Your task to perform on an android device: Open settings Image 0: 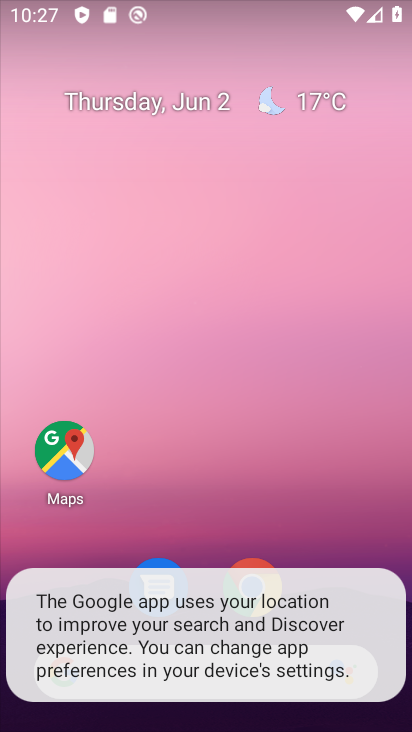
Step 0: drag from (263, 605) to (342, 225)
Your task to perform on an android device: Open settings Image 1: 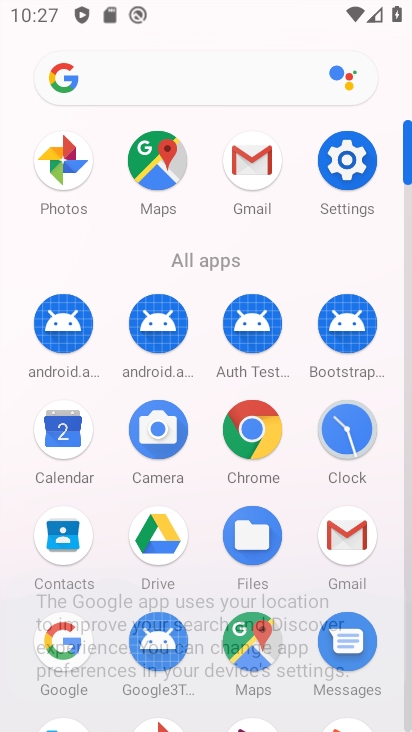
Step 1: click (346, 187)
Your task to perform on an android device: Open settings Image 2: 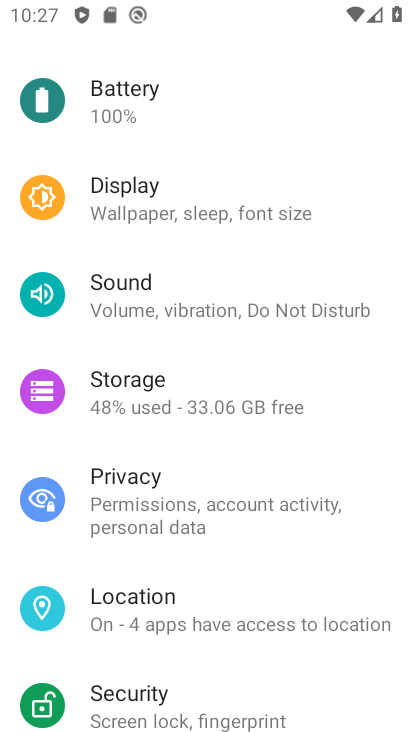
Step 2: drag from (223, 180) to (230, 619)
Your task to perform on an android device: Open settings Image 3: 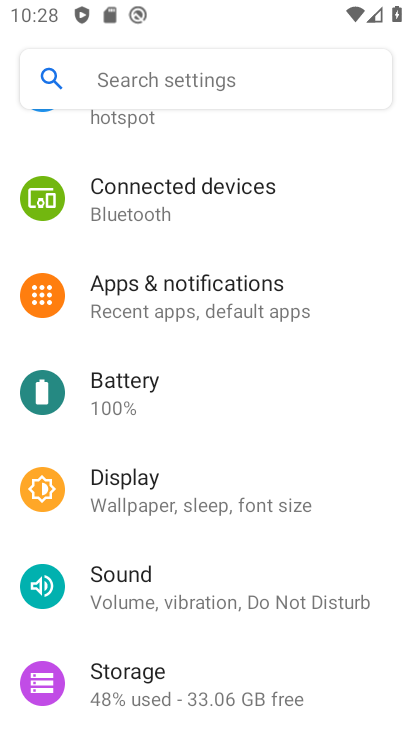
Step 3: drag from (237, 223) to (255, 650)
Your task to perform on an android device: Open settings Image 4: 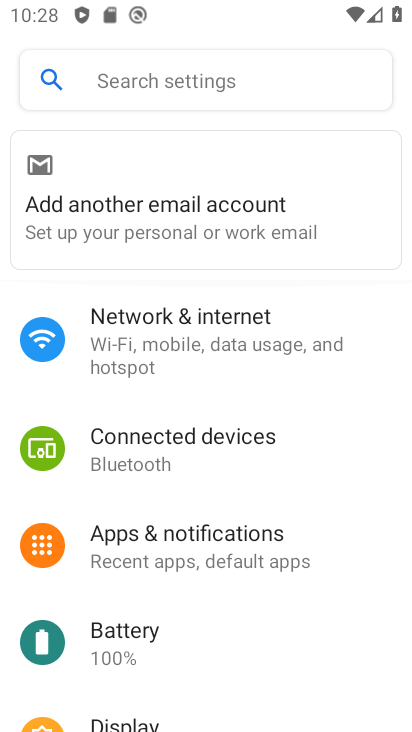
Step 4: drag from (304, 213) to (298, 555)
Your task to perform on an android device: Open settings Image 5: 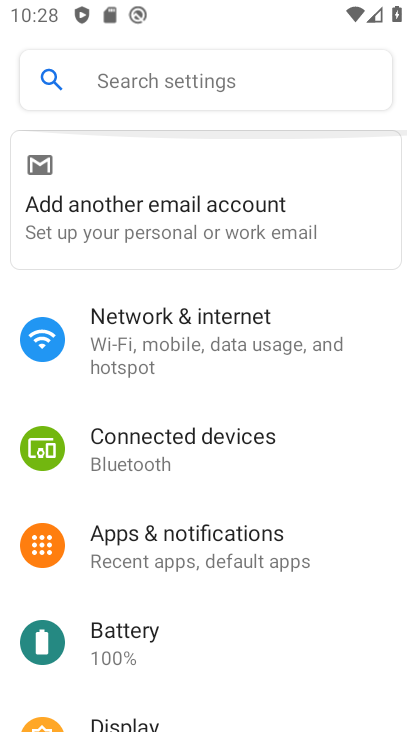
Step 5: click (270, 348)
Your task to perform on an android device: Open settings Image 6: 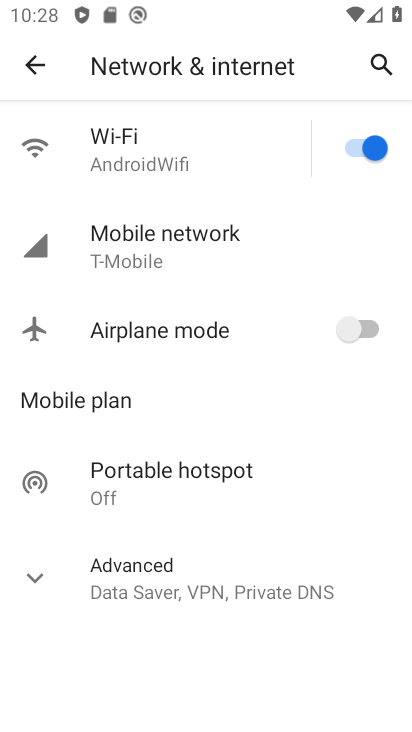
Step 6: click (183, 165)
Your task to perform on an android device: Open settings Image 7: 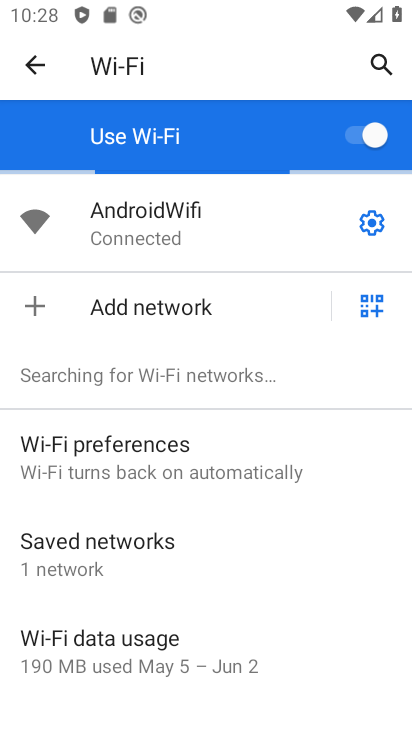
Step 7: click (373, 238)
Your task to perform on an android device: Open settings Image 8: 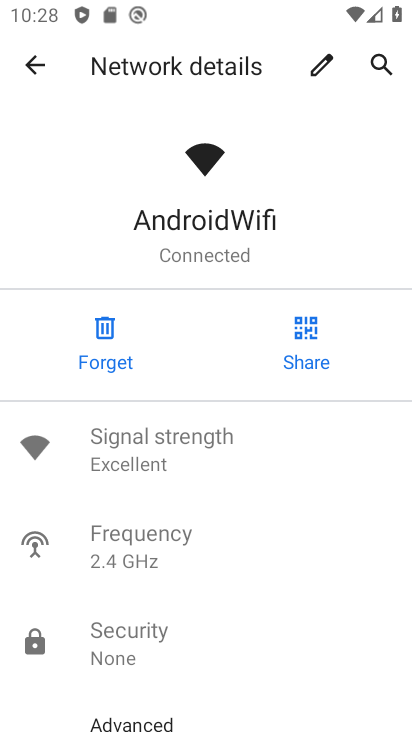
Step 8: task complete